Your task to perform on an android device: Go to Wikipedia Image 0: 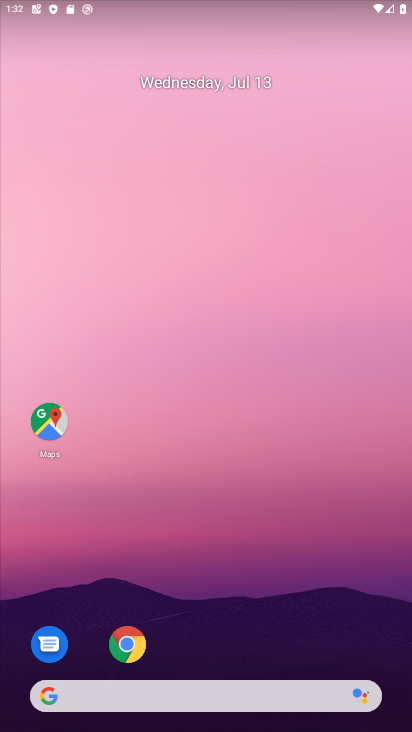
Step 0: click (134, 644)
Your task to perform on an android device: Go to Wikipedia Image 1: 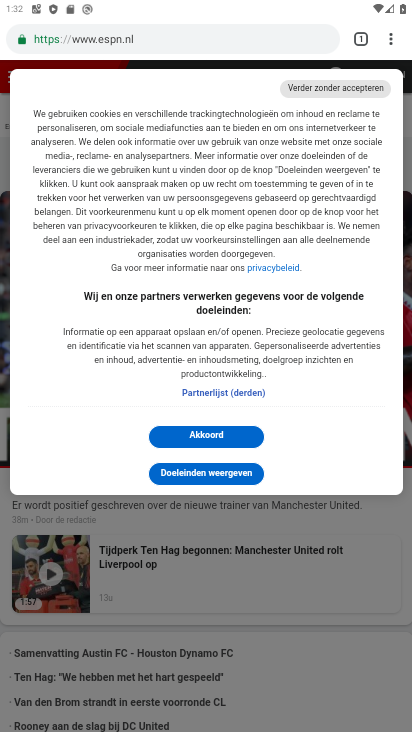
Step 1: click (203, 43)
Your task to perform on an android device: Go to Wikipedia Image 2: 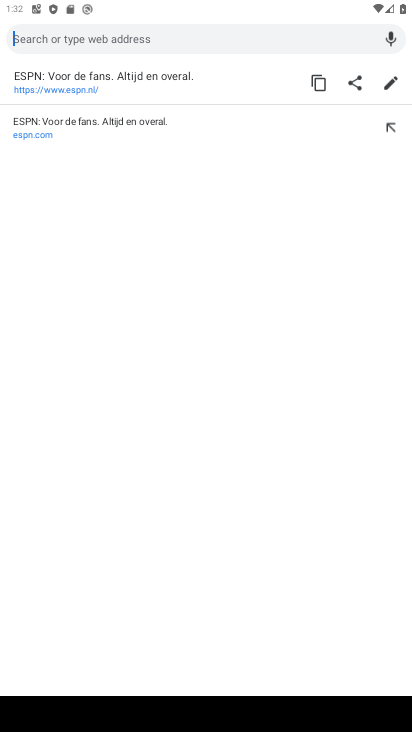
Step 2: type "wikipedia"
Your task to perform on an android device: Go to Wikipedia Image 3: 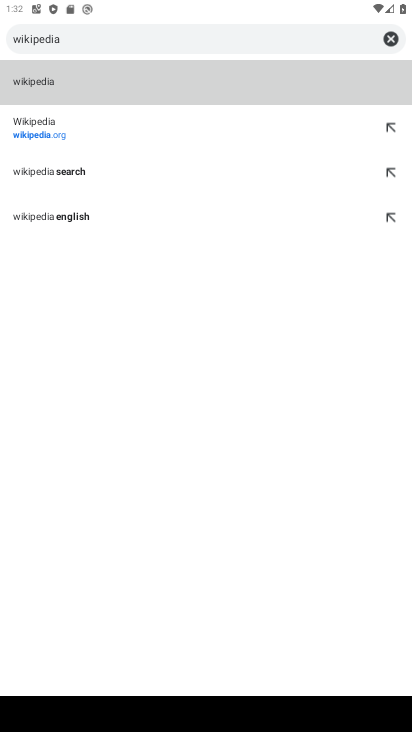
Step 3: click (180, 79)
Your task to perform on an android device: Go to Wikipedia Image 4: 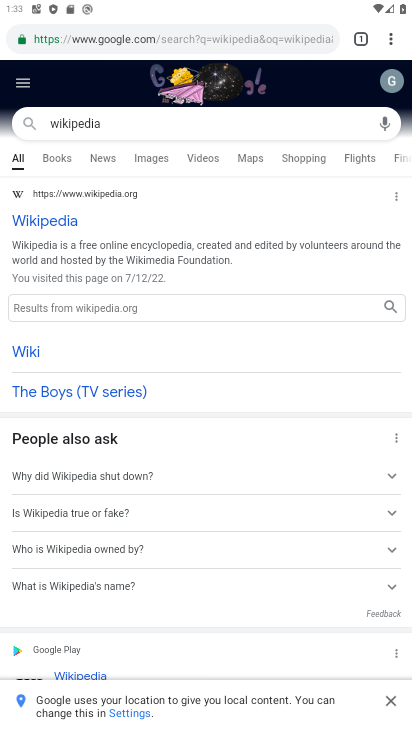
Step 4: click (32, 215)
Your task to perform on an android device: Go to Wikipedia Image 5: 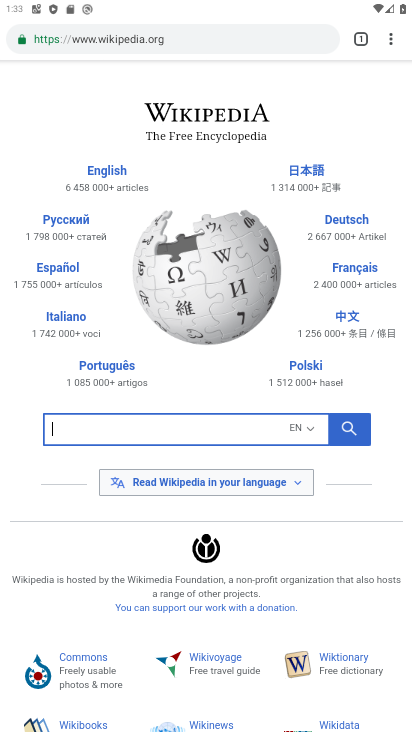
Step 5: task complete